Your task to perform on an android device: Search for sushi restaurants on Maps Image 0: 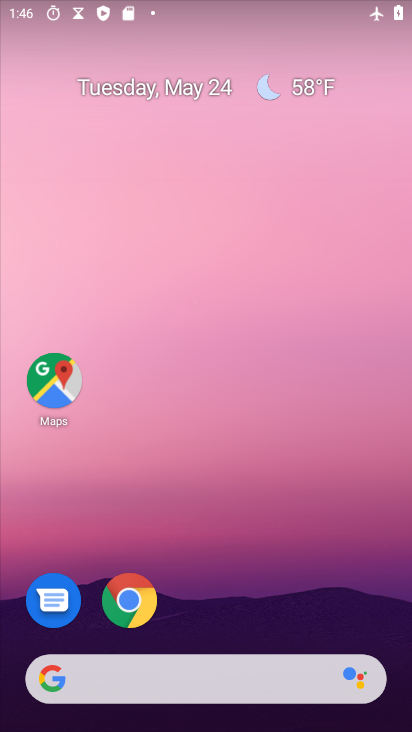
Step 0: drag from (296, 590) to (240, 32)
Your task to perform on an android device: Search for sushi restaurants on Maps Image 1: 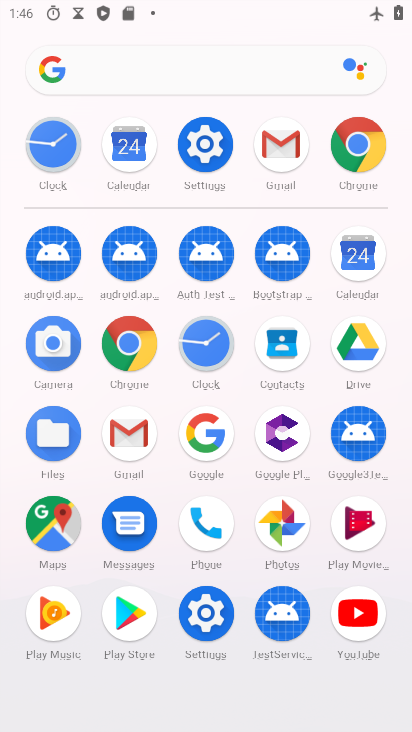
Step 1: click (52, 523)
Your task to perform on an android device: Search for sushi restaurants on Maps Image 2: 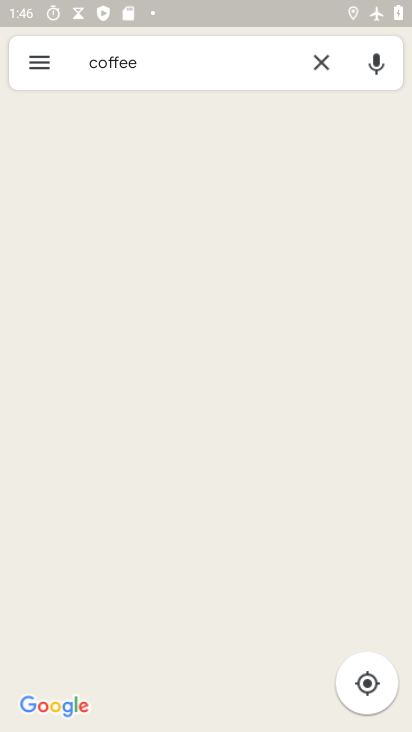
Step 2: click (316, 64)
Your task to perform on an android device: Search for sushi restaurants on Maps Image 3: 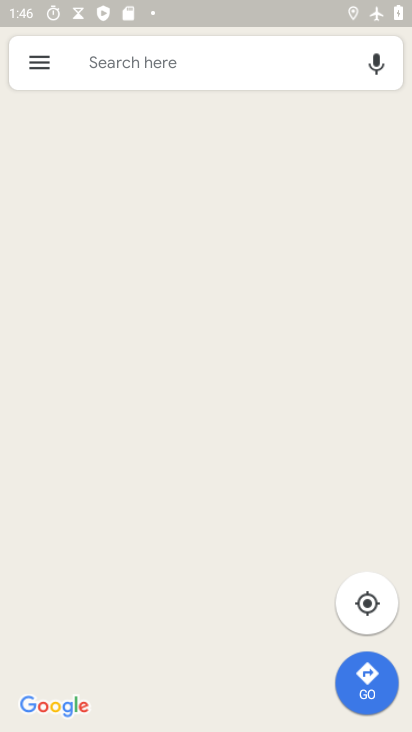
Step 3: click (188, 62)
Your task to perform on an android device: Search for sushi restaurants on Maps Image 4: 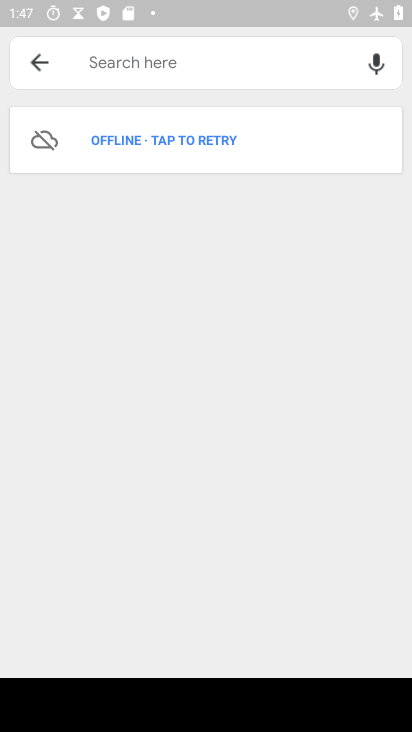
Step 4: type "sushi restaurants"
Your task to perform on an android device: Search for sushi restaurants on Maps Image 5: 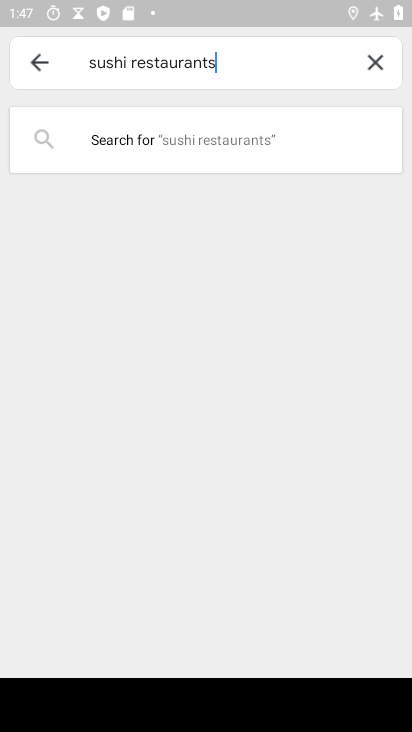
Step 5: task complete